Your task to perform on an android device: open app "Facebook" (install if not already installed), go to login, and select forgot password Image 0: 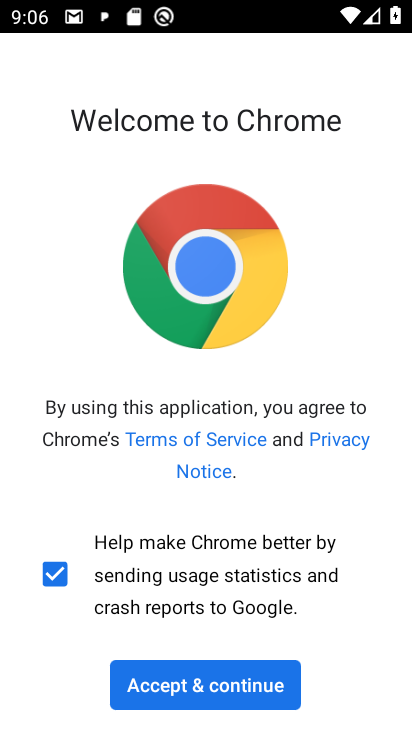
Step 0: press home button
Your task to perform on an android device: open app "Facebook" (install if not already installed), go to login, and select forgot password Image 1: 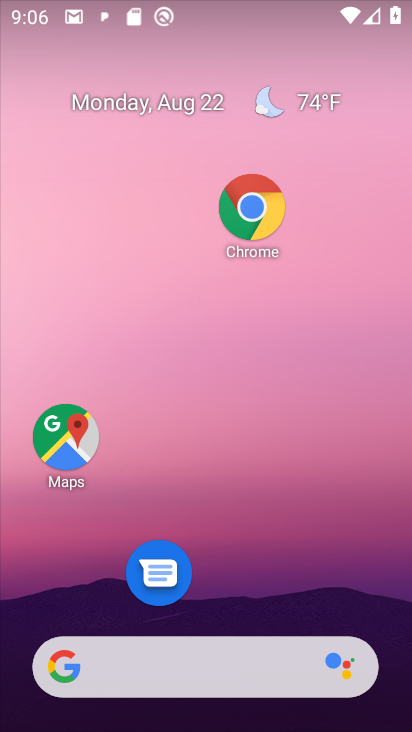
Step 1: drag from (216, 616) to (272, 94)
Your task to perform on an android device: open app "Facebook" (install if not already installed), go to login, and select forgot password Image 2: 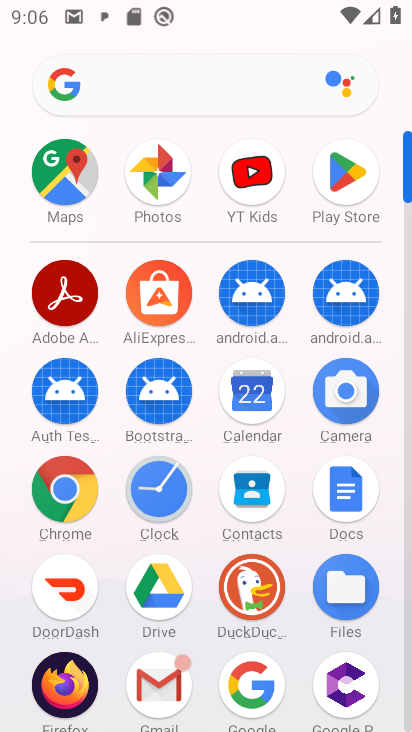
Step 2: click (340, 169)
Your task to perform on an android device: open app "Facebook" (install if not already installed), go to login, and select forgot password Image 3: 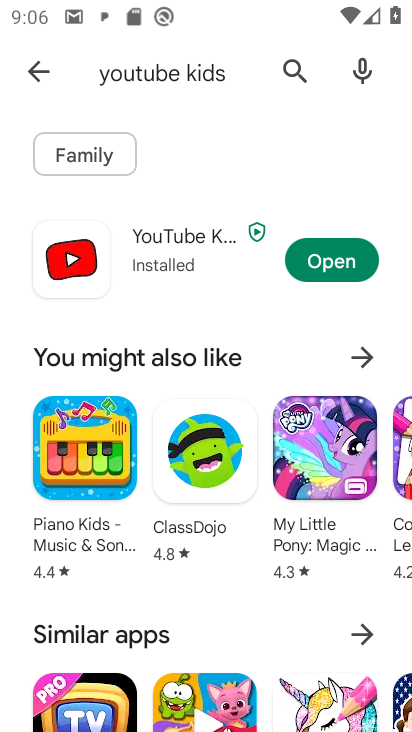
Step 3: click (122, 72)
Your task to perform on an android device: open app "Facebook" (install if not already installed), go to login, and select forgot password Image 4: 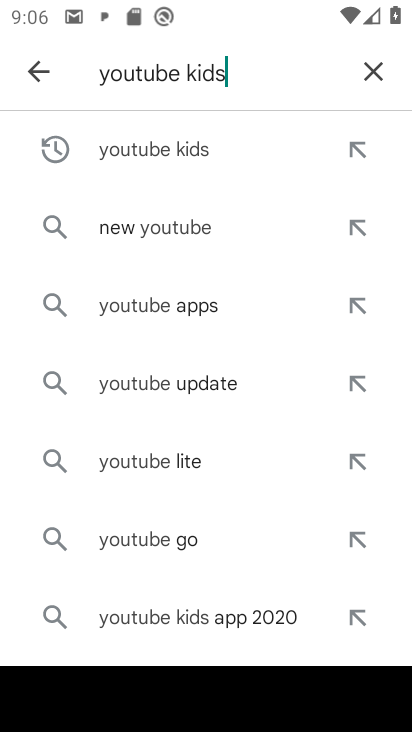
Step 4: click (363, 67)
Your task to perform on an android device: open app "Facebook" (install if not already installed), go to login, and select forgot password Image 5: 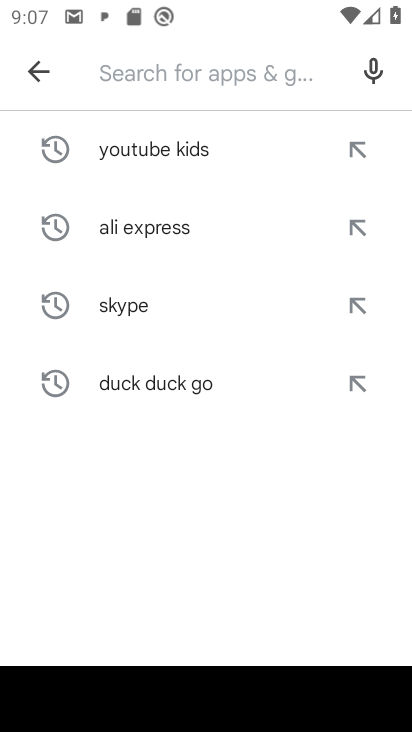
Step 5: type "facebook"
Your task to perform on an android device: open app "Facebook" (install if not already installed), go to login, and select forgot password Image 6: 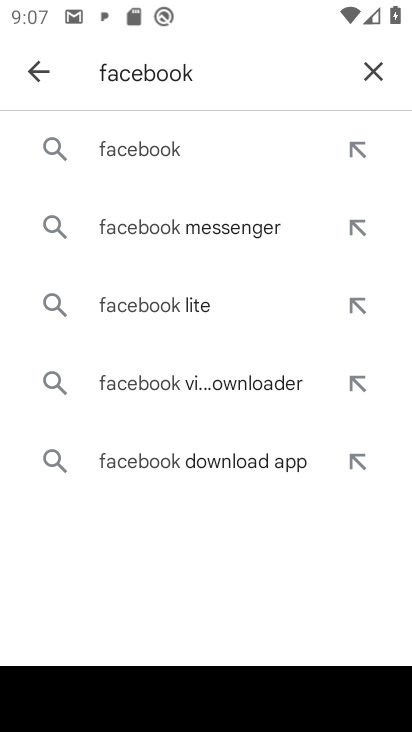
Step 6: click (188, 158)
Your task to perform on an android device: open app "Facebook" (install if not already installed), go to login, and select forgot password Image 7: 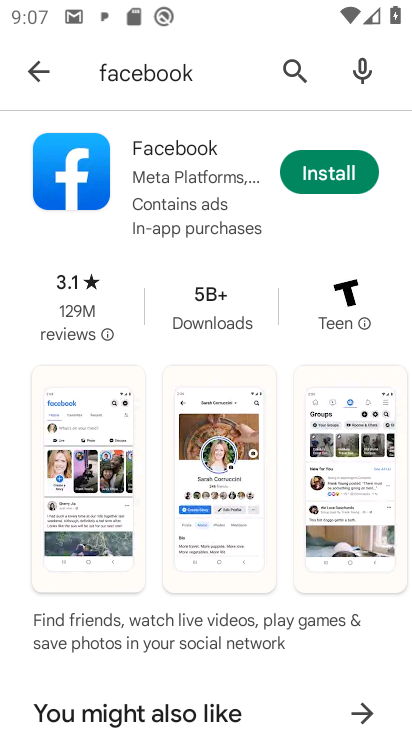
Step 7: click (312, 167)
Your task to perform on an android device: open app "Facebook" (install if not already installed), go to login, and select forgot password Image 8: 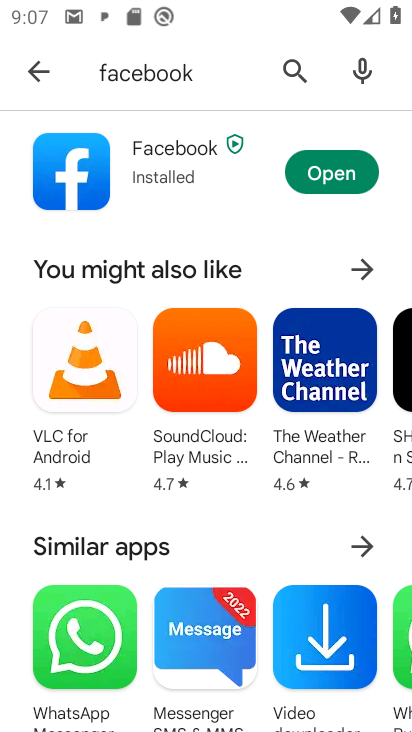
Step 8: click (320, 172)
Your task to perform on an android device: open app "Facebook" (install if not already installed), go to login, and select forgot password Image 9: 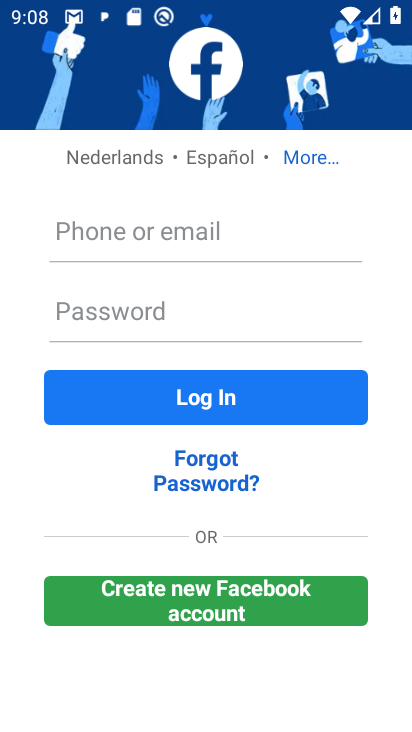
Step 9: click (193, 478)
Your task to perform on an android device: open app "Facebook" (install if not already installed), go to login, and select forgot password Image 10: 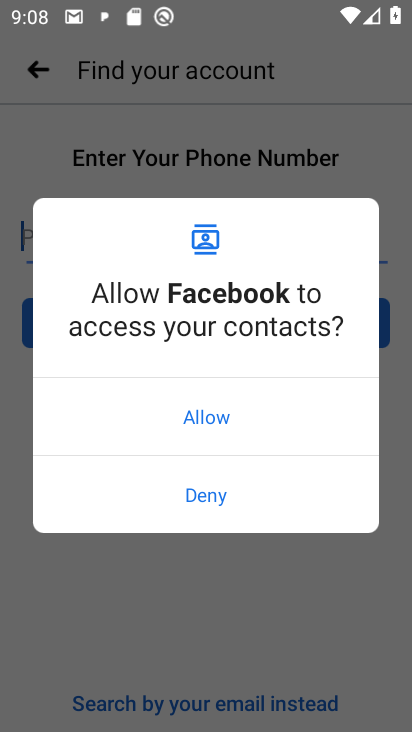
Step 10: click (183, 414)
Your task to perform on an android device: open app "Facebook" (install if not already installed), go to login, and select forgot password Image 11: 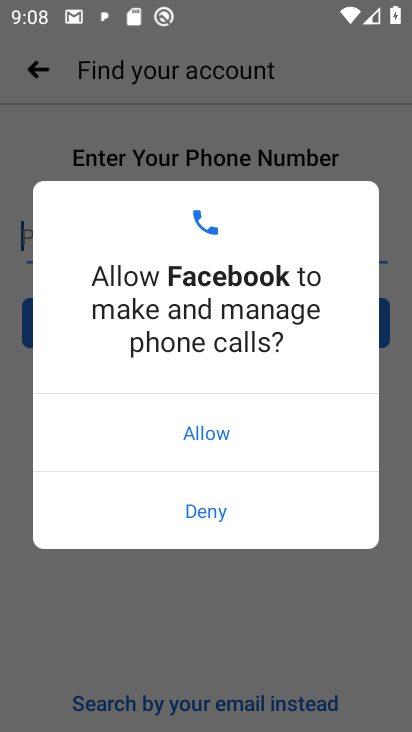
Step 11: click (195, 430)
Your task to perform on an android device: open app "Facebook" (install if not already installed), go to login, and select forgot password Image 12: 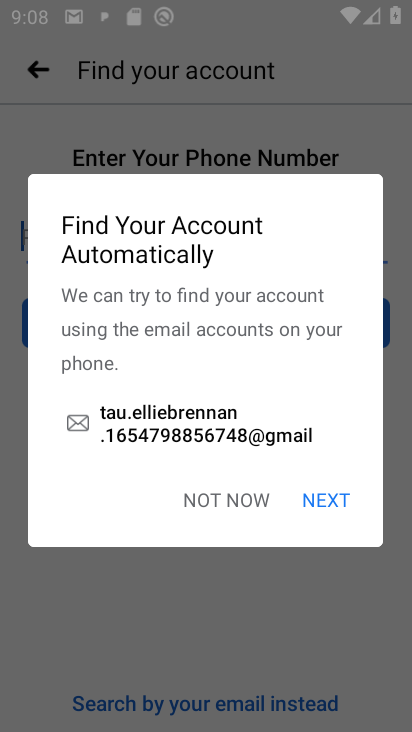
Step 12: task complete